Your task to perform on an android device: turn on priority inbox in the gmail app Image 0: 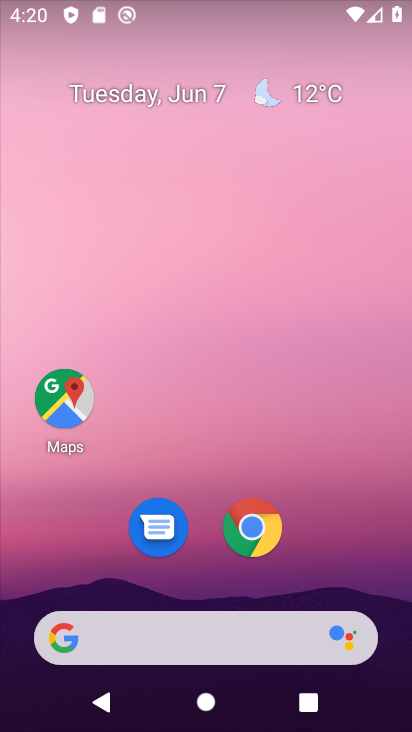
Step 0: drag from (339, 556) to (201, 75)
Your task to perform on an android device: turn on priority inbox in the gmail app Image 1: 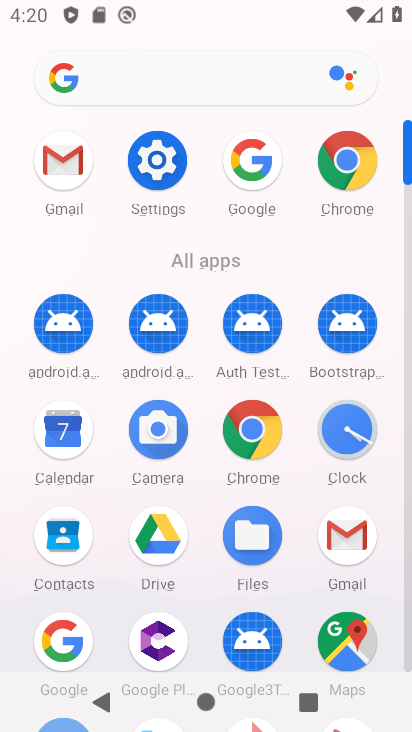
Step 1: click (59, 158)
Your task to perform on an android device: turn on priority inbox in the gmail app Image 2: 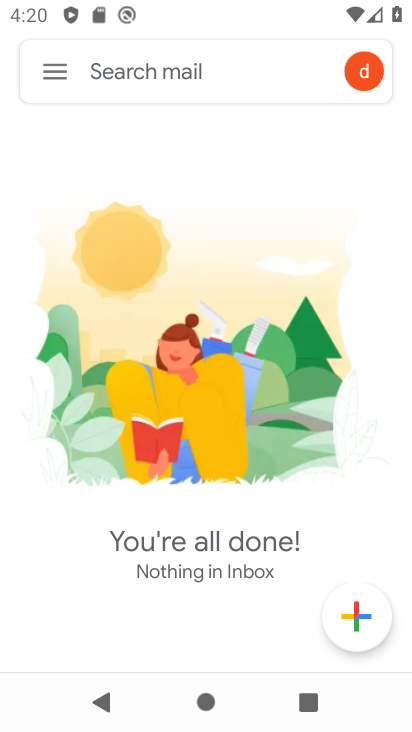
Step 2: click (50, 66)
Your task to perform on an android device: turn on priority inbox in the gmail app Image 3: 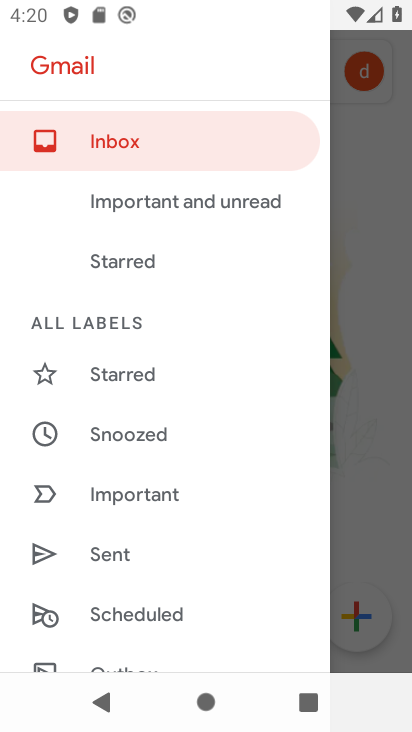
Step 3: drag from (144, 550) to (171, 429)
Your task to perform on an android device: turn on priority inbox in the gmail app Image 4: 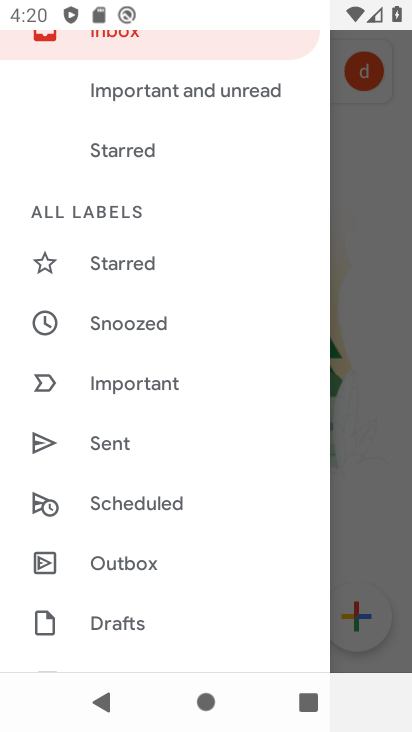
Step 4: drag from (142, 561) to (148, 501)
Your task to perform on an android device: turn on priority inbox in the gmail app Image 5: 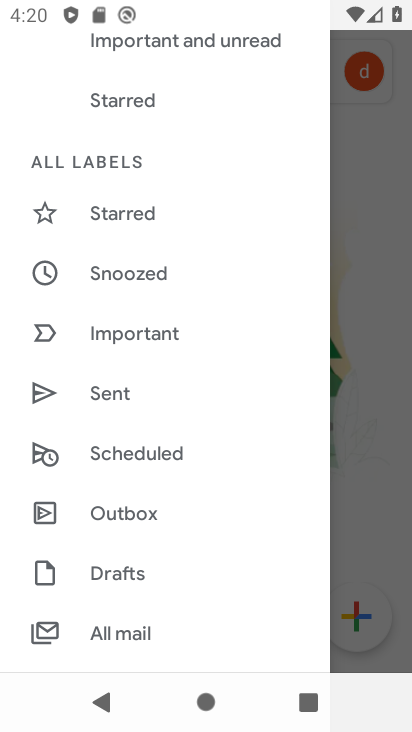
Step 5: drag from (134, 544) to (125, 447)
Your task to perform on an android device: turn on priority inbox in the gmail app Image 6: 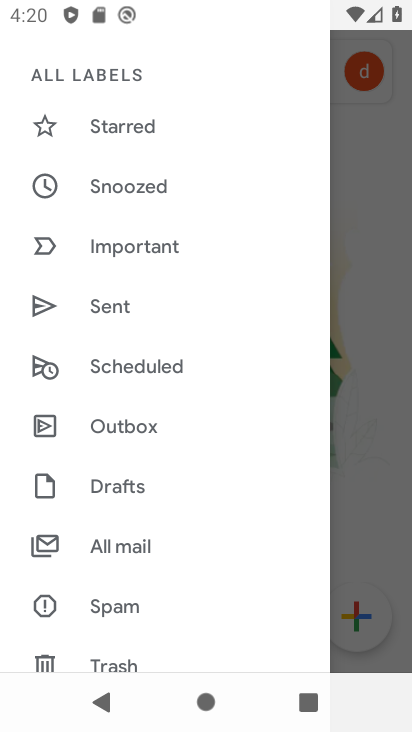
Step 6: drag from (124, 519) to (153, 427)
Your task to perform on an android device: turn on priority inbox in the gmail app Image 7: 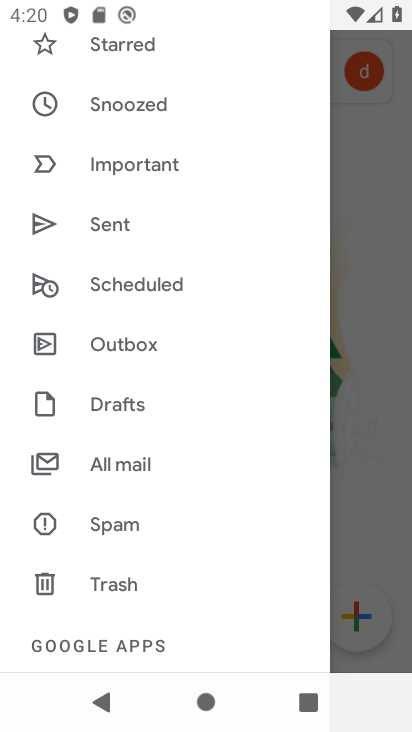
Step 7: drag from (111, 501) to (113, 395)
Your task to perform on an android device: turn on priority inbox in the gmail app Image 8: 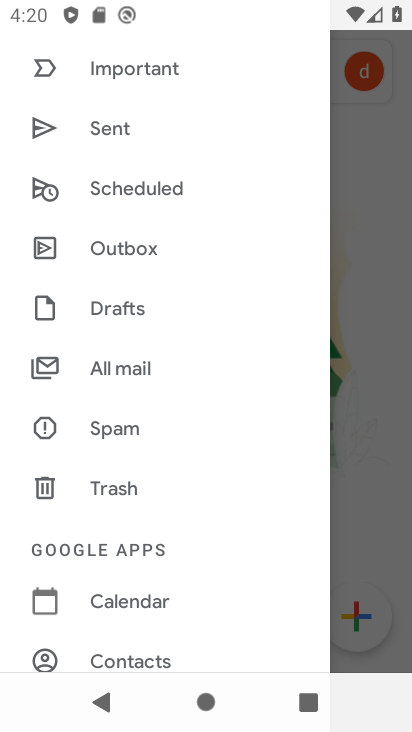
Step 8: drag from (114, 518) to (132, 398)
Your task to perform on an android device: turn on priority inbox in the gmail app Image 9: 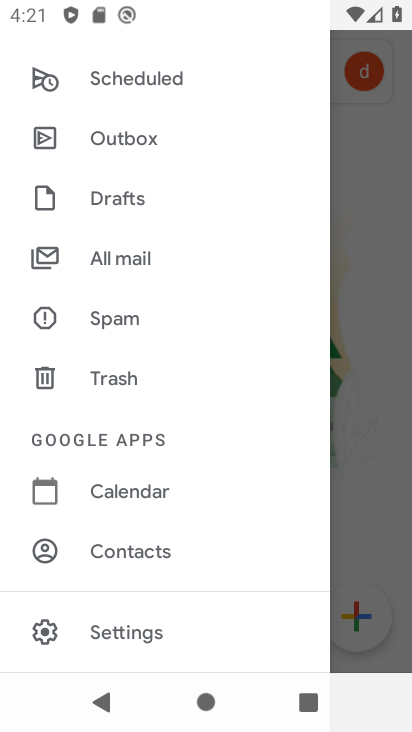
Step 9: drag from (111, 521) to (162, 390)
Your task to perform on an android device: turn on priority inbox in the gmail app Image 10: 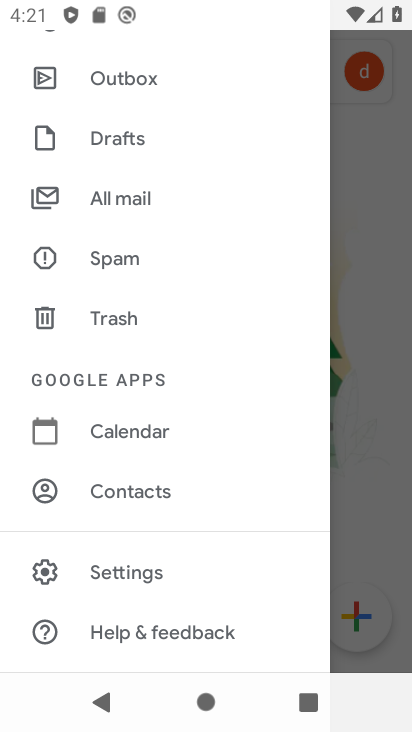
Step 10: click (140, 581)
Your task to perform on an android device: turn on priority inbox in the gmail app Image 11: 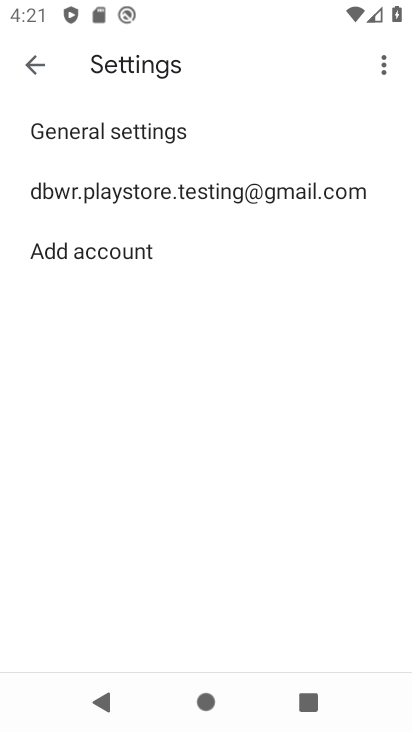
Step 11: click (233, 200)
Your task to perform on an android device: turn on priority inbox in the gmail app Image 12: 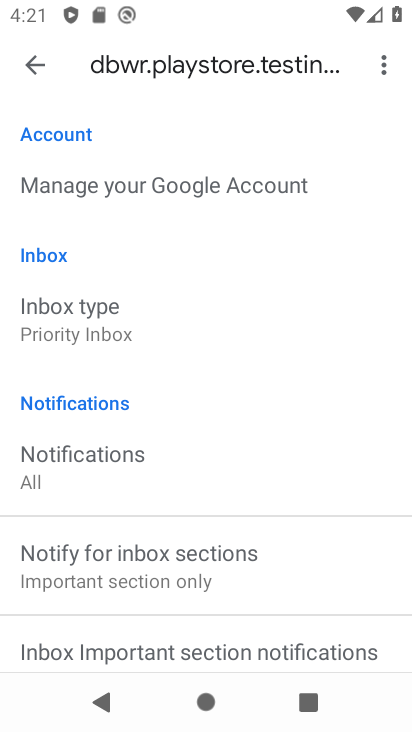
Step 12: task complete